Your task to perform on an android device: open a bookmark in the chrome app Image 0: 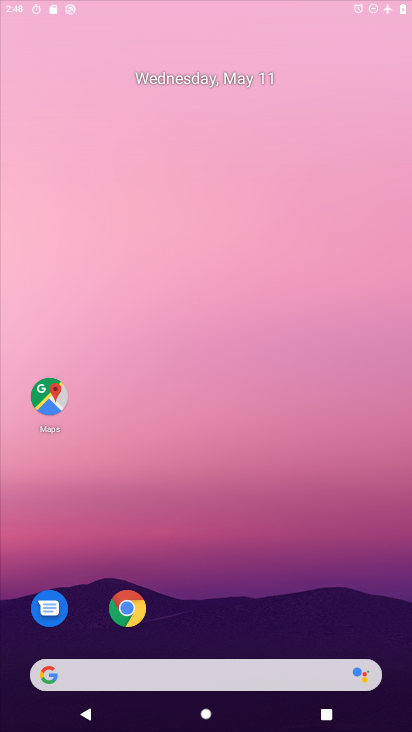
Step 0: drag from (167, 276) to (176, 21)
Your task to perform on an android device: open a bookmark in the chrome app Image 1: 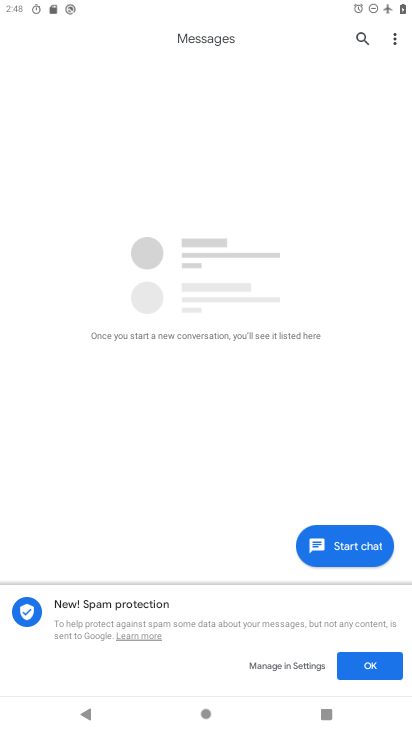
Step 1: press home button
Your task to perform on an android device: open a bookmark in the chrome app Image 2: 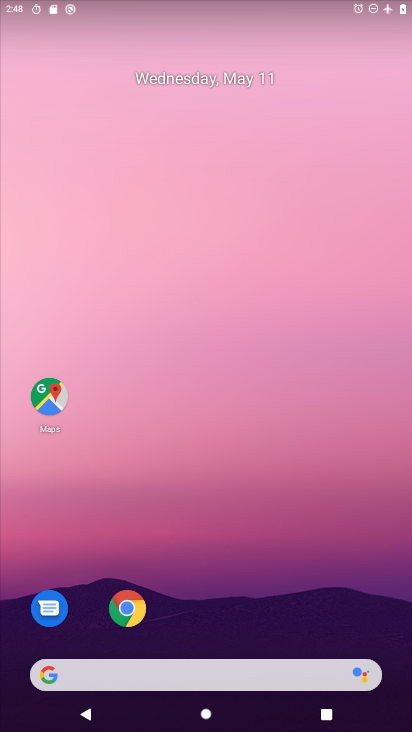
Step 2: drag from (275, 638) to (305, 133)
Your task to perform on an android device: open a bookmark in the chrome app Image 3: 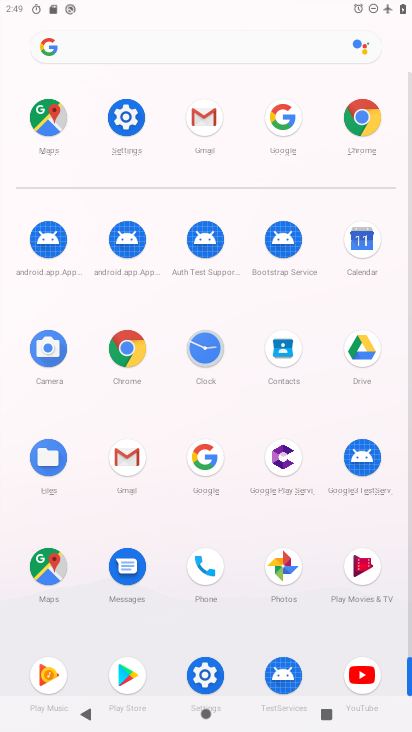
Step 3: click (359, 123)
Your task to perform on an android device: open a bookmark in the chrome app Image 4: 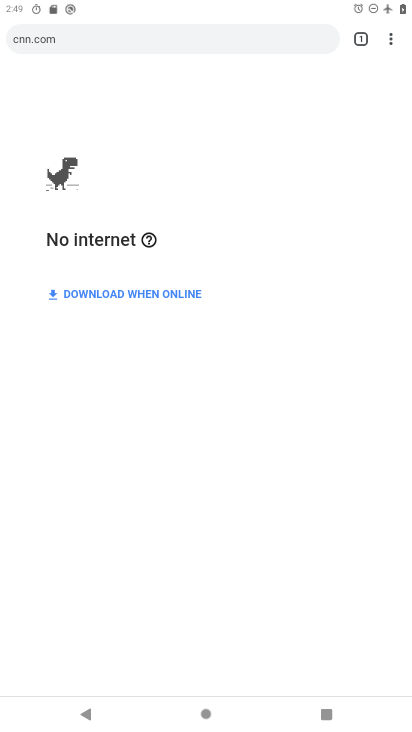
Step 4: click (389, 35)
Your task to perform on an android device: open a bookmark in the chrome app Image 5: 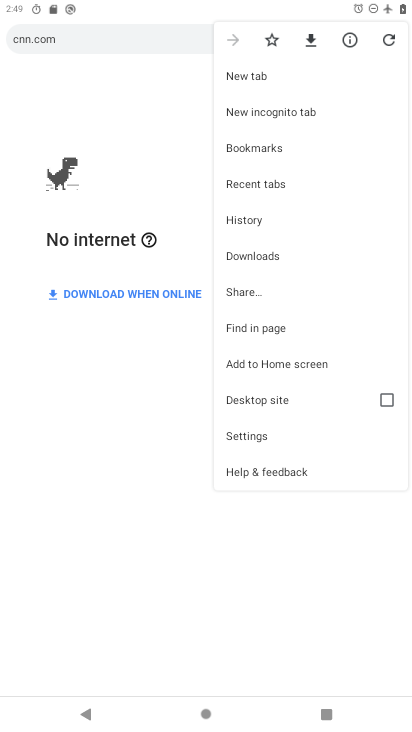
Step 5: click (265, 148)
Your task to perform on an android device: open a bookmark in the chrome app Image 6: 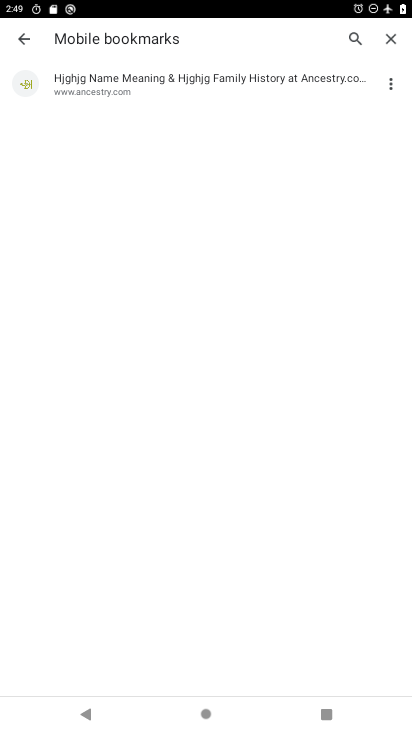
Step 6: click (258, 88)
Your task to perform on an android device: open a bookmark in the chrome app Image 7: 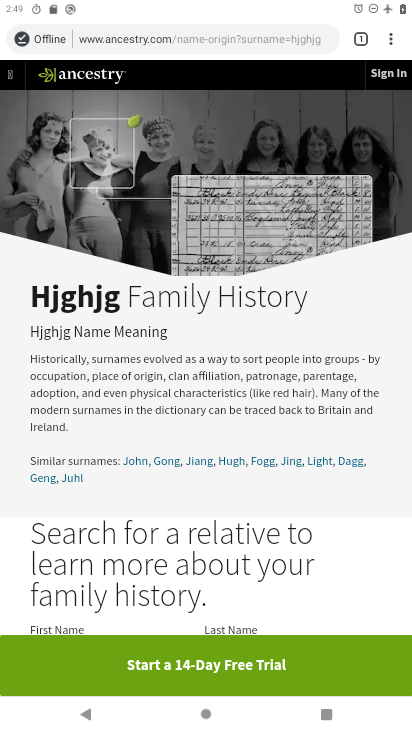
Step 7: task complete